Your task to perform on an android device: Go to calendar. Show me events next week Image 0: 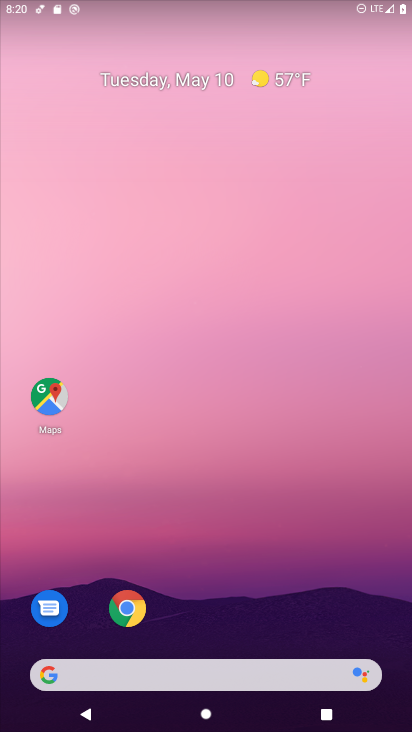
Step 0: drag from (346, 612) to (11, 135)
Your task to perform on an android device: Go to calendar. Show me events next week Image 1: 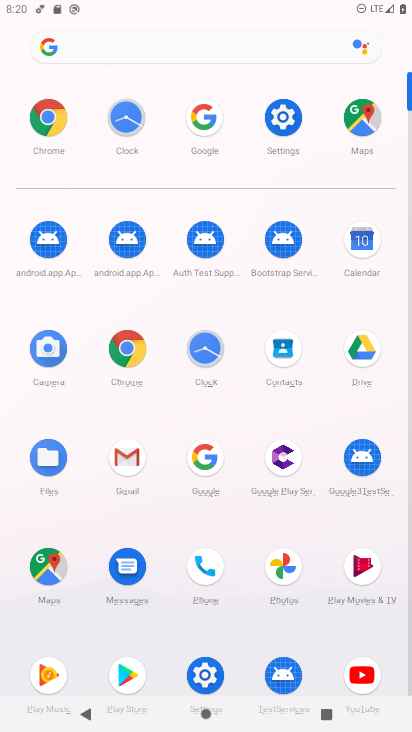
Step 1: click (366, 252)
Your task to perform on an android device: Go to calendar. Show me events next week Image 2: 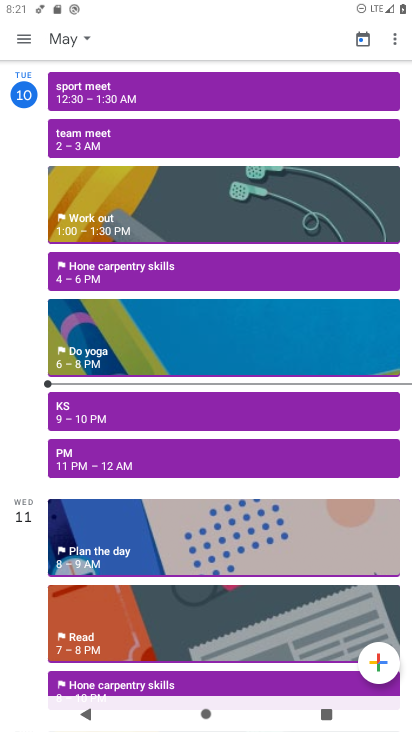
Step 2: task complete